Your task to perform on an android device: change the clock display to digital Image 0: 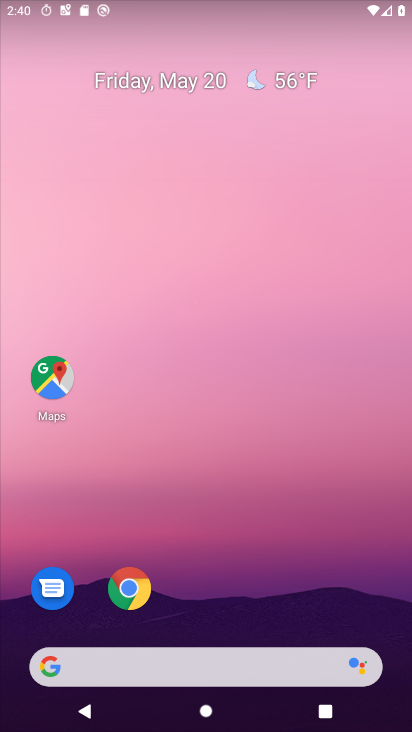
Step 0: drag from (21, 526) to (266, 107)
Your task to perform on an android device: change the clock display to digital Image 1: 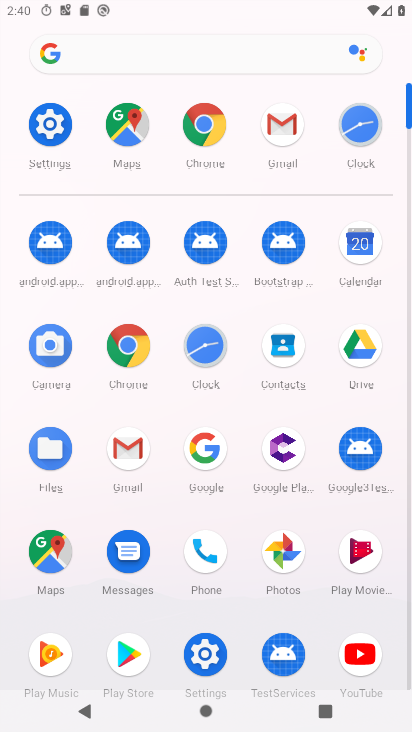
Step 1: click (347, 129)
Your task to perform on an android device: change the clock display to digital Image 2: 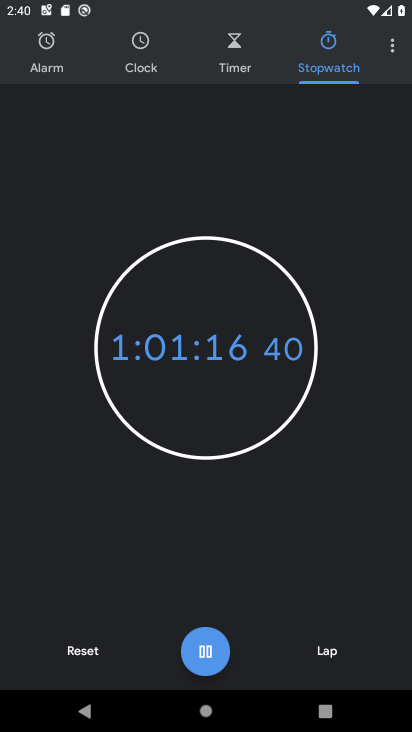
Step 2: click (394, 39)
Your task to perform on an android device: change the clock display to digital Image 3: 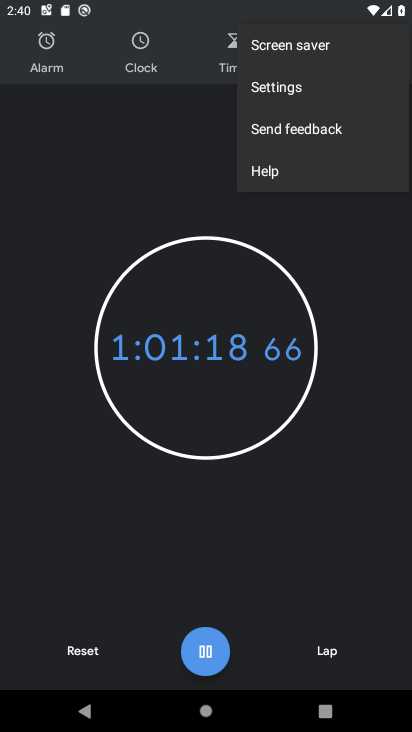
Step 3: click (288, 87)
Your task to perform on an android device: change the clock display to digital Image 4: 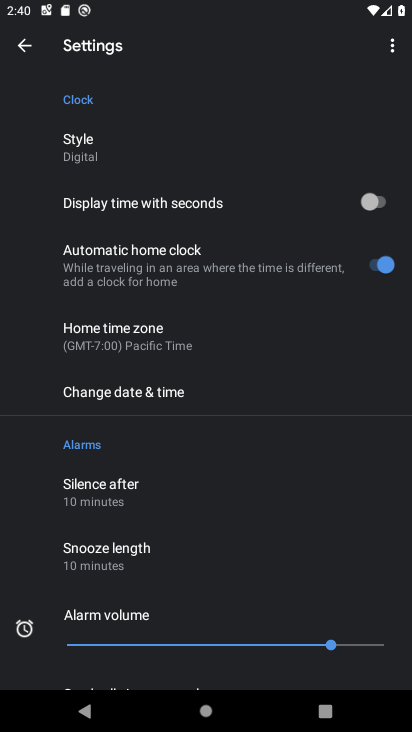
Step 4: task complete